Your task to perform on an android device: allow notifications from all sites in the chrome app Image 0: 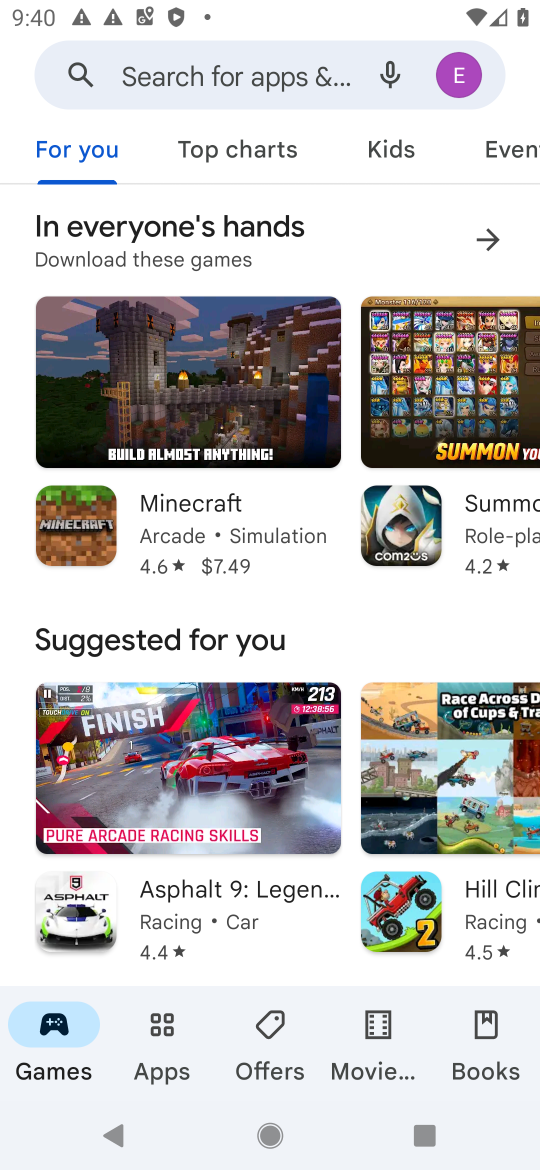
Step 0: press home button
Your task to perform on an android device: allow notifications from all sites in the chrome app Image 1: 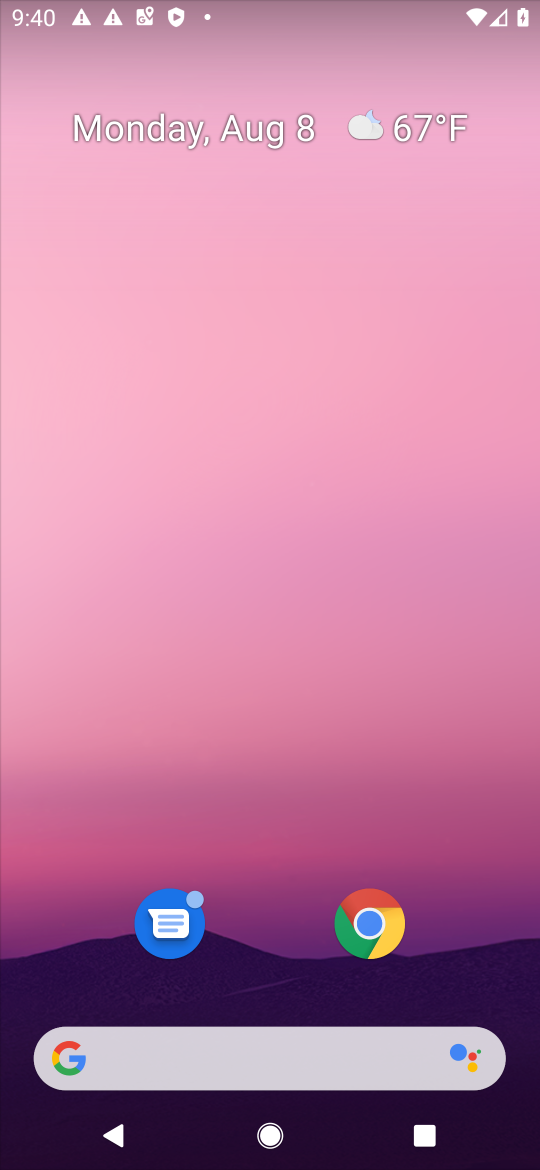
Step 1: click (368, 930)
Your task to perform on an android device: allow notifications from all sites in the chrome app Image 2: 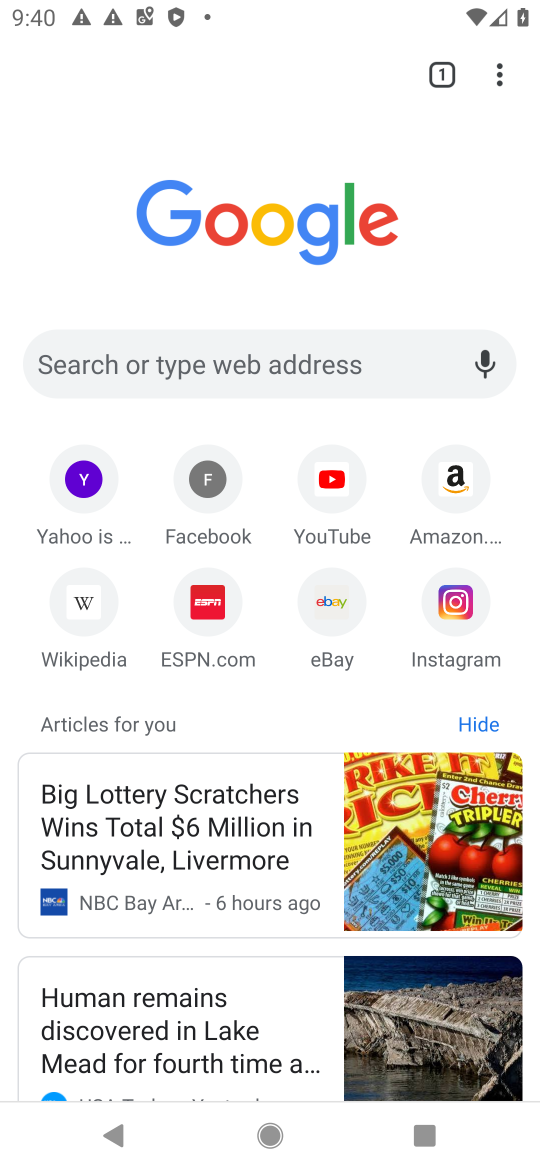
Step 2: click (503, 80)
Your task to perform on an android device: allow notifications from all sites in the chrome app Image 3: 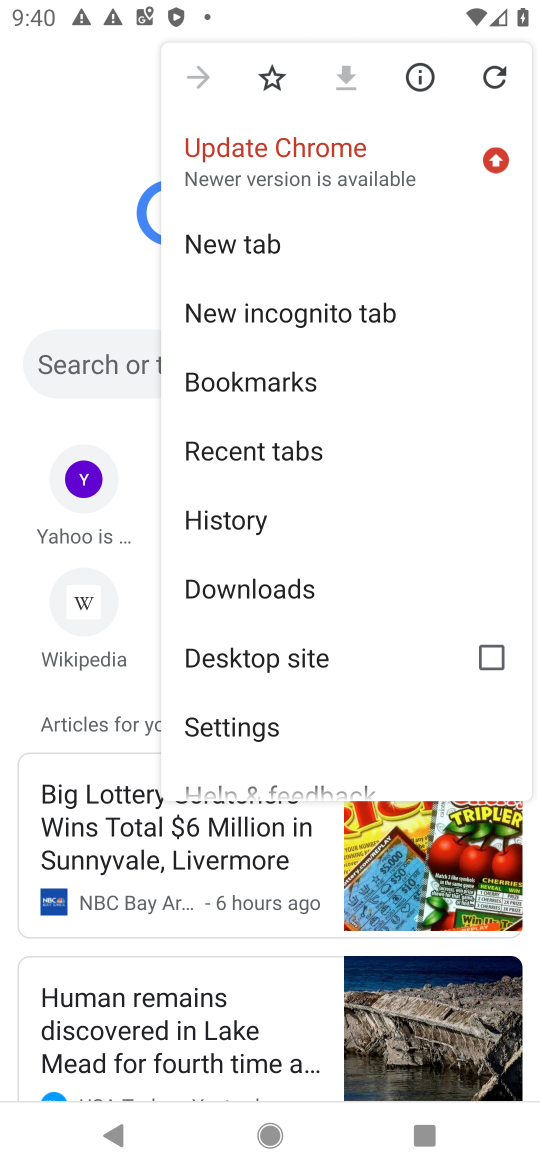
Step 3: click (248, 717)
Your task to perform on an android device: allow notifications from all sites in the chrome app Image 4: 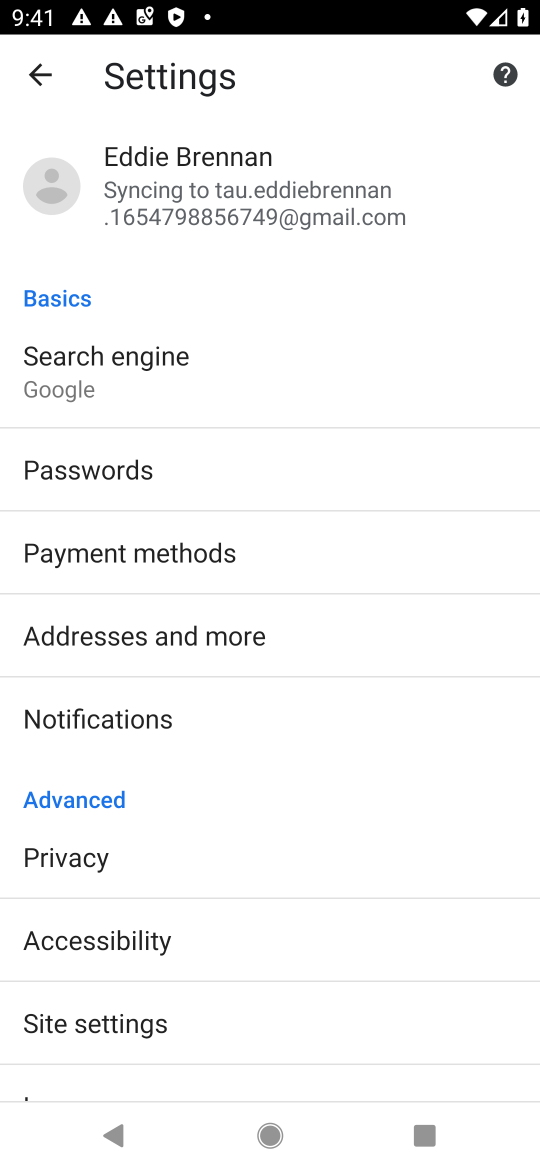
Step 4: click (138, 716)
Your task to perform on an android device: allow notifications from all sites in the chrome app Image 5: 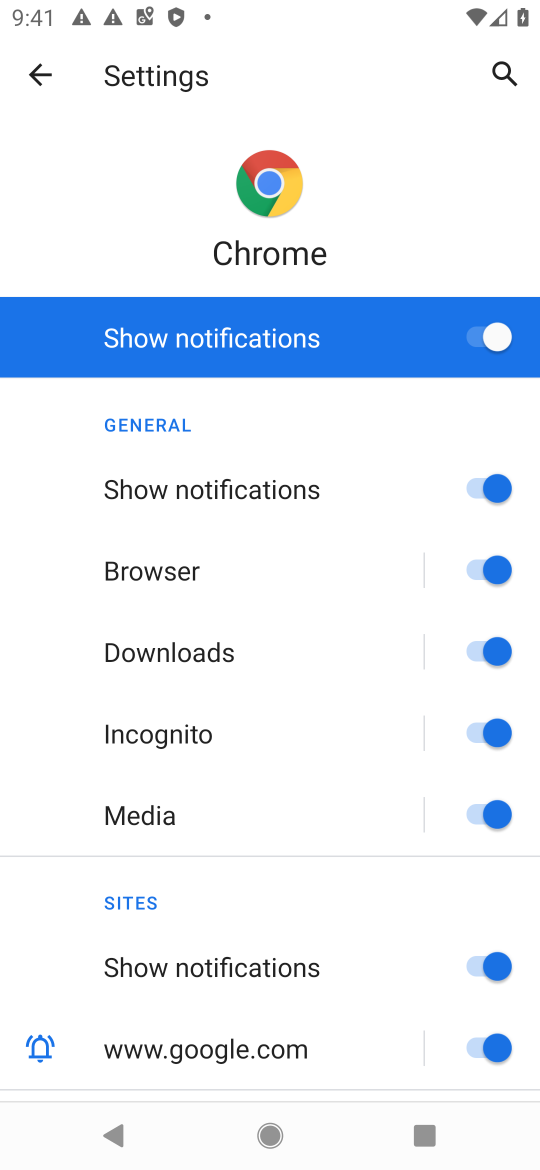
Step 5: task complete